Your task to perform on an android device: What's on my calendar tomorrow? Image 0: 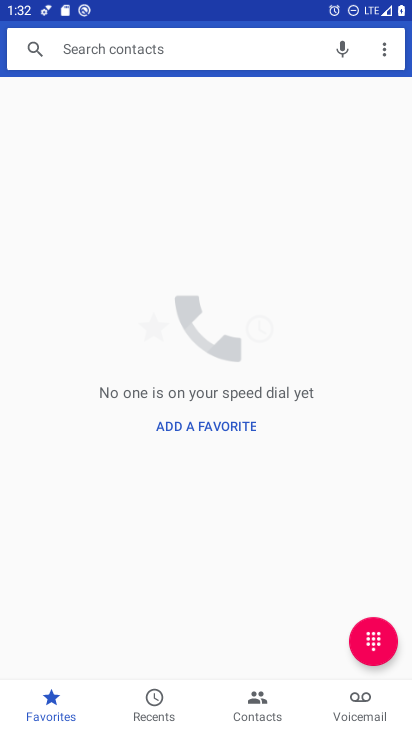
Step 0: press home button
Your task to perform on an android device: What's on my calendar tomorrow? Image 1: 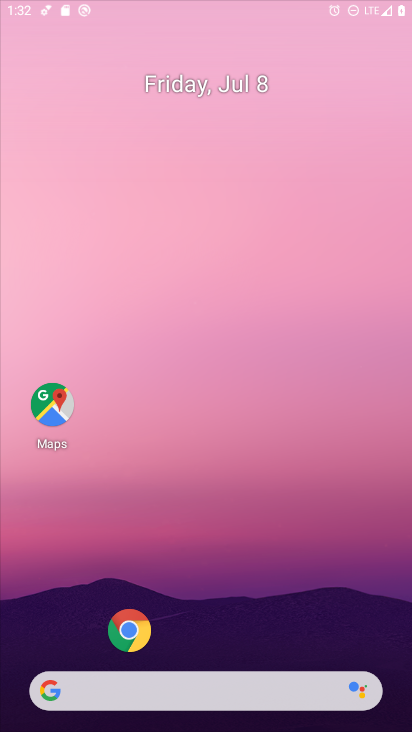
Step 1: drag from (294, 693) to (315, 88)
Your task to perform on an android device: What's on my calendar tomorrow? Image 2: 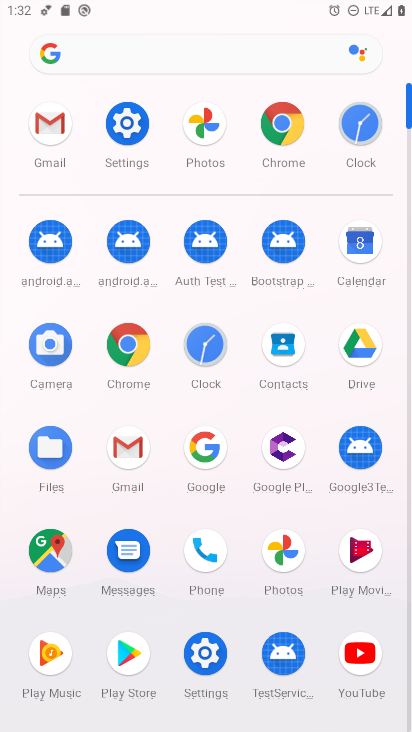
Step 2: click (366, 245)
Your task to perform on an android device: What's on my calendar tomorrow? Image 3: 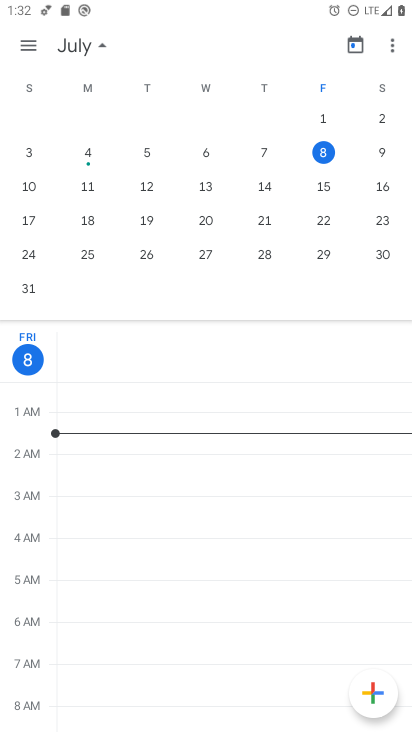
Step 3: click (379, 151)
Your task to perform on an android device: What's on my calendar tomorrow? Image 4: 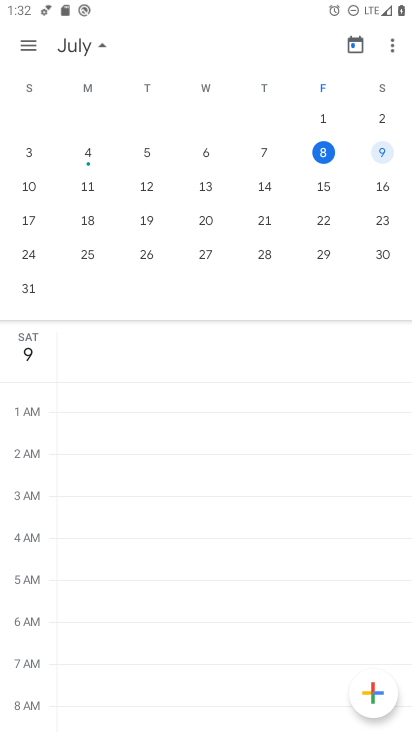
Step 4: click (371, 154)
Your task to perform on an android device: What's on my calendar tomorrow? Image 5: 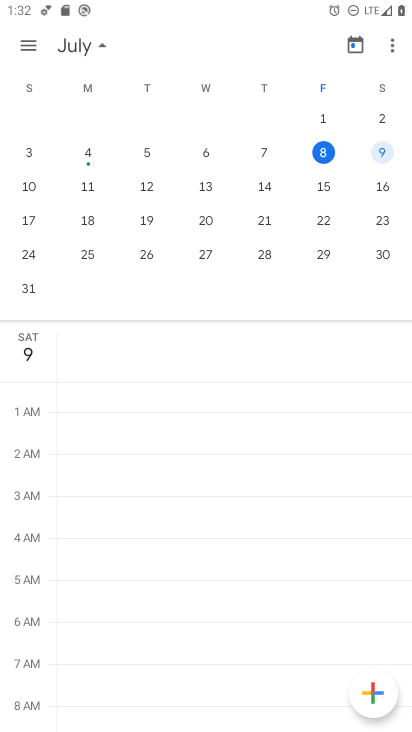
Step 5: task complete